Your task to perform on an android device: Open Chrome and go to settings Image 0: 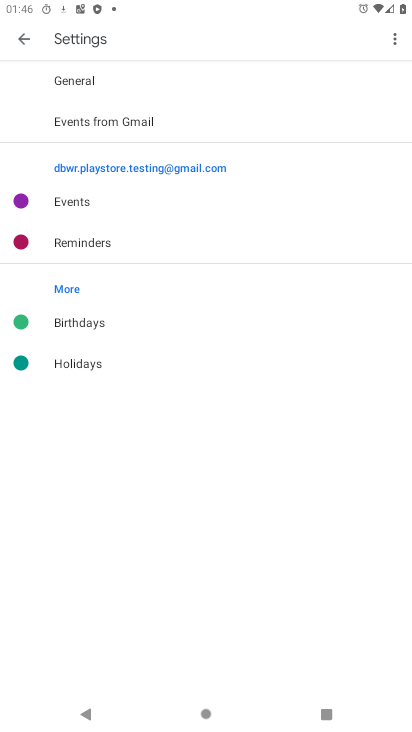
Step 0: press home button
Your task to perform on an android device: Open Chrome and go to settings Image 1: 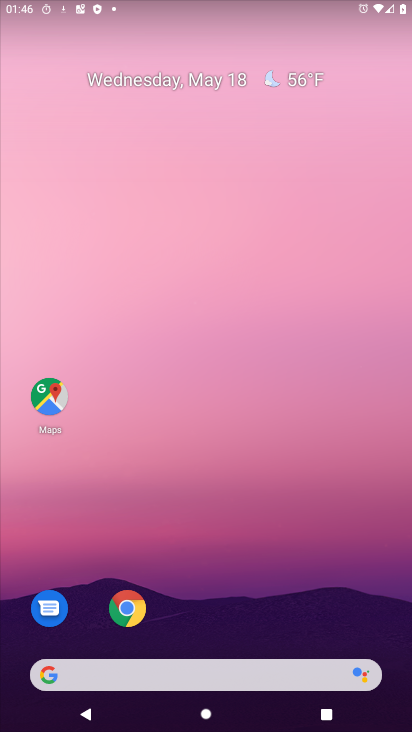
Step 1: drag from (295, 672) to (375, 188)
Your task to perform on an android device: Open Chrome and go to settings Image 2: 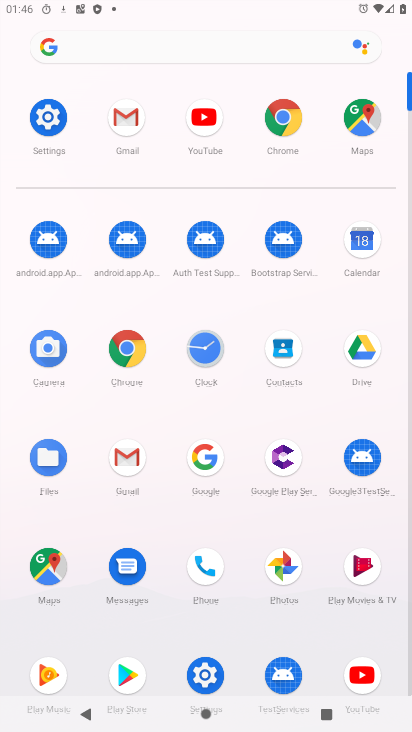
Step 2: click (121, 347)
Your task to perform on an android device: Open Chrome and go to settings Image 3: 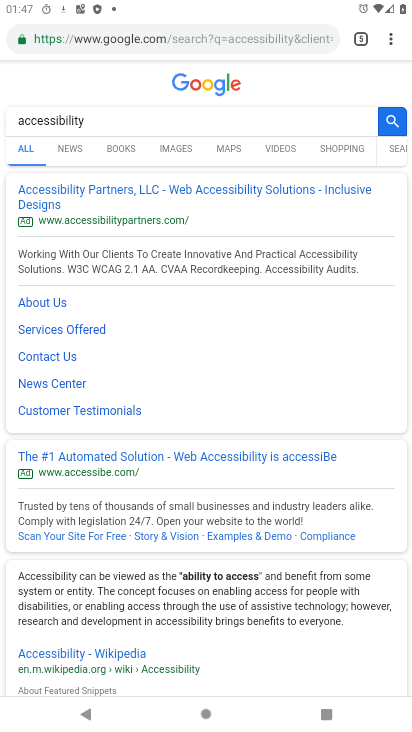
Step 3: click (376, 50)
Your task to perform on an android device: Open Chrome and go to settings Image 4: 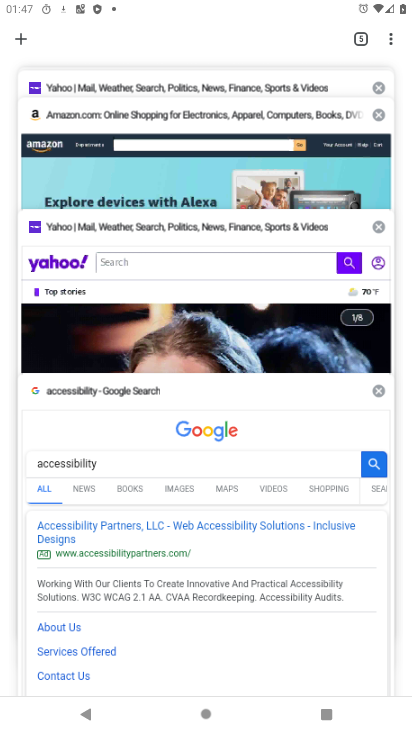
Step 4: click (386, 51)
Your task to perform on an android device: Open Chrome and go to settings Image 5: 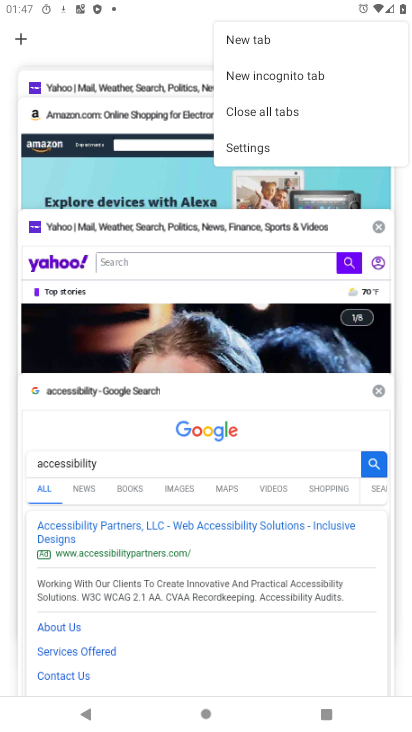
Step 5: click (246, 146)
Your task to perform on an android device: Open Chrome and go to settings Image 6: 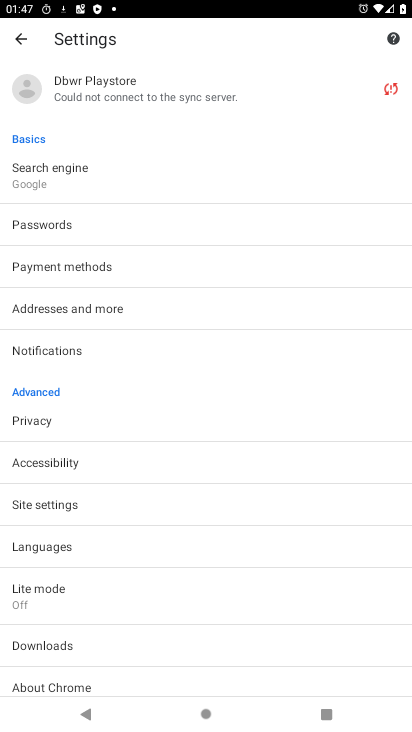
Step 6: task complete